Your task to perform on an android device: snooze an email in the gmail app Image 0: 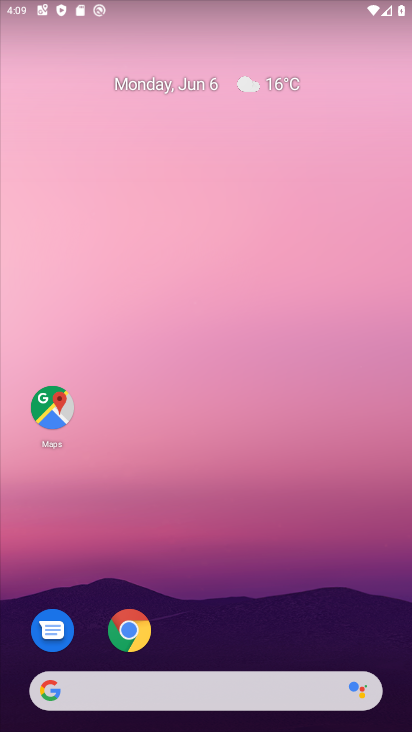
Step 0: drag from (226, 630) to (275, 128)
Your task to perform on an android device: snooze an email in the gmail app Image 1: 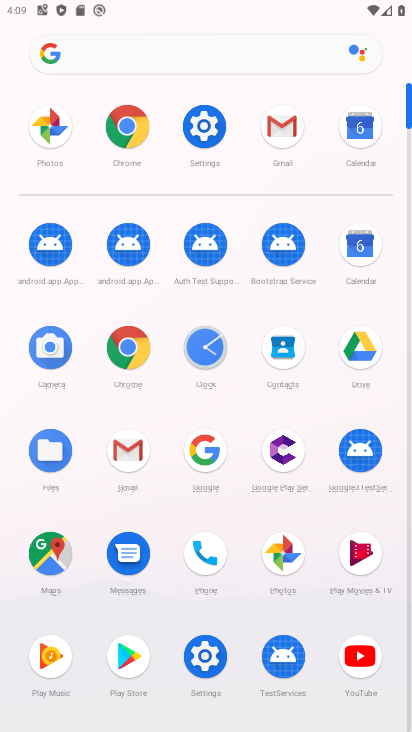
Step 1: click (279, 125)
Your task to perform on an android device: snooze an email in the gmail app Image 2: 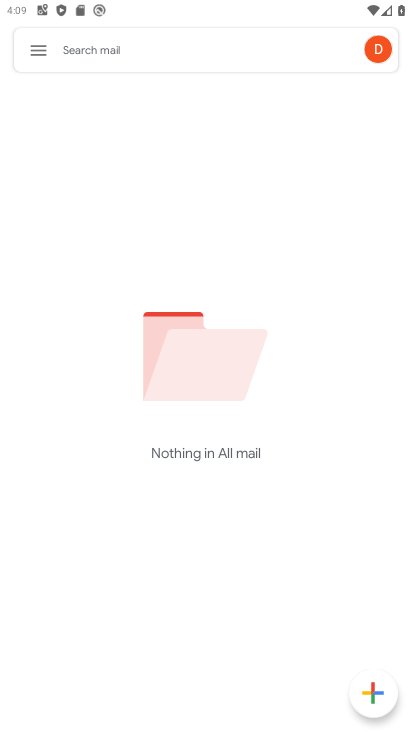
Step 2: click (35, 57)
Your task to perform on an android device: snooze an email in the gmail app Image 3: 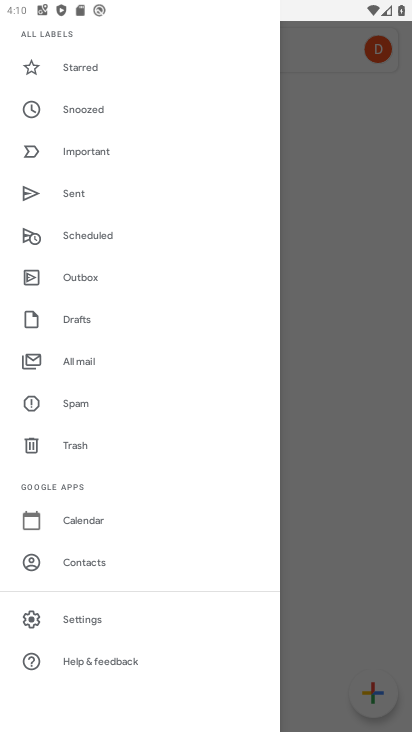
Step 3: click (89, 364)
Your task to perform on an android device: snooze an email in the gmail app Image 4: 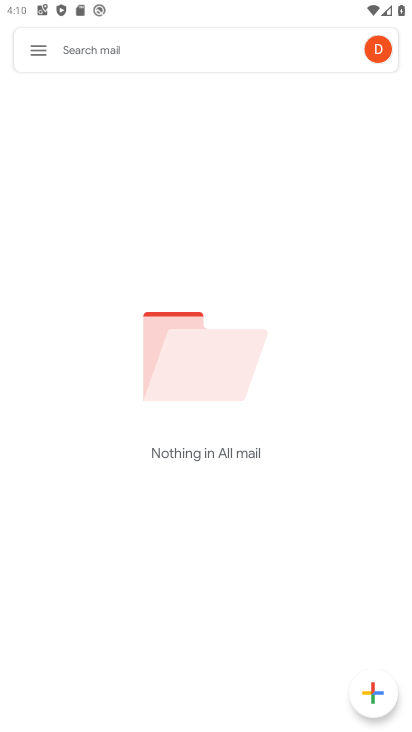
Step 4: task complete